Your task to perform on an android device: Open my contact list Image 0: 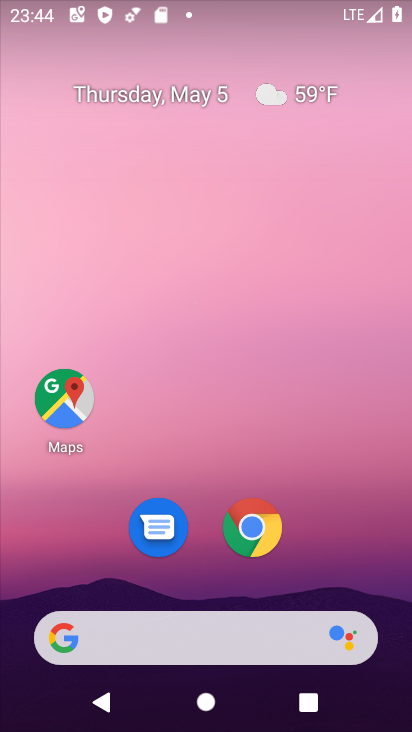
Step 0: drag from (227, 583) to (350, 46)
Your task to perform on an android device: Open my contact list Image 1: 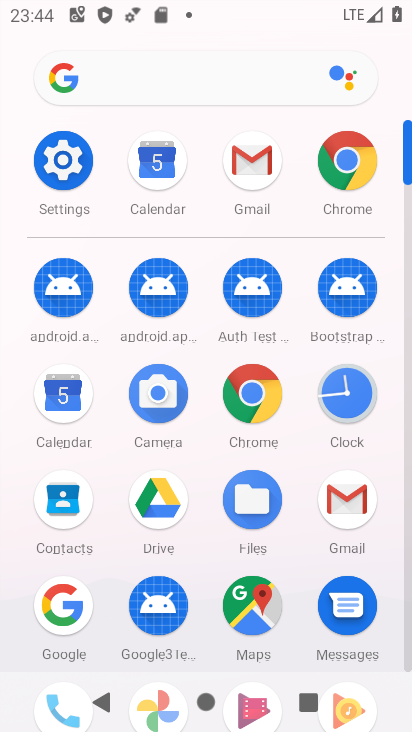
Step 1: click (75, 509)
Your task to perform on an android device: Open my contact list Image 2: 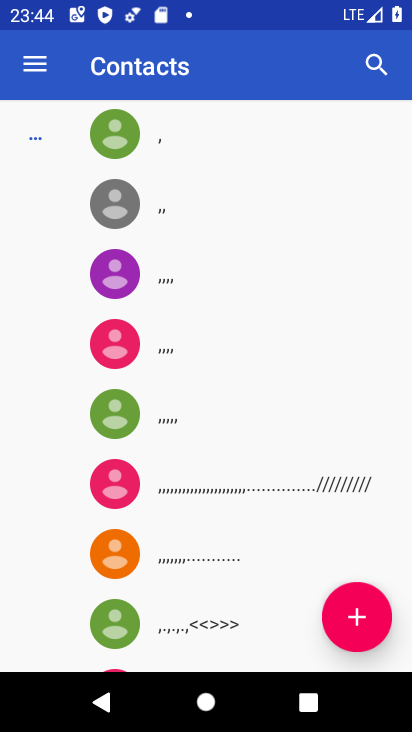
Step 2: task complete